Your task to perform on an android device: Open battery settings Image 0: 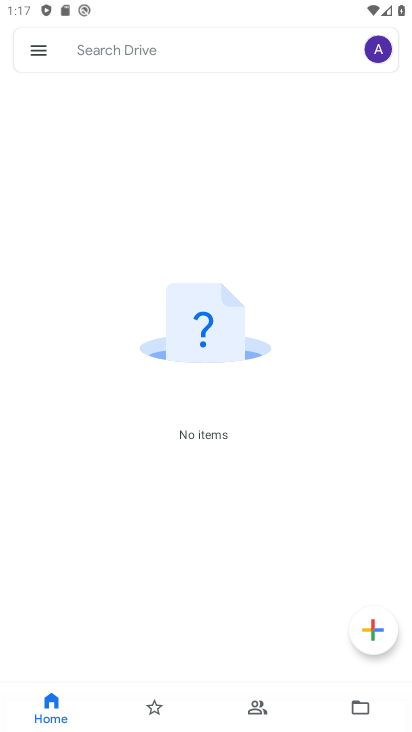
Step 0: press home button
Your task to perform on an android device: Open battery settings Image 1: 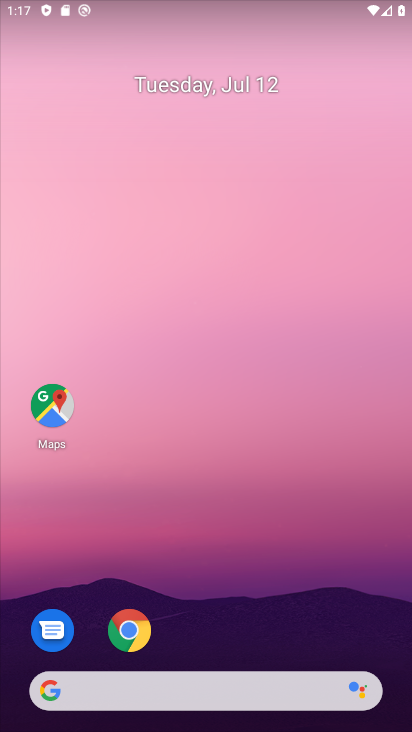
Step 1: drag from (204, 658) to (144, 51)
Your task to perform on an android device: Open battery settings Image 2: 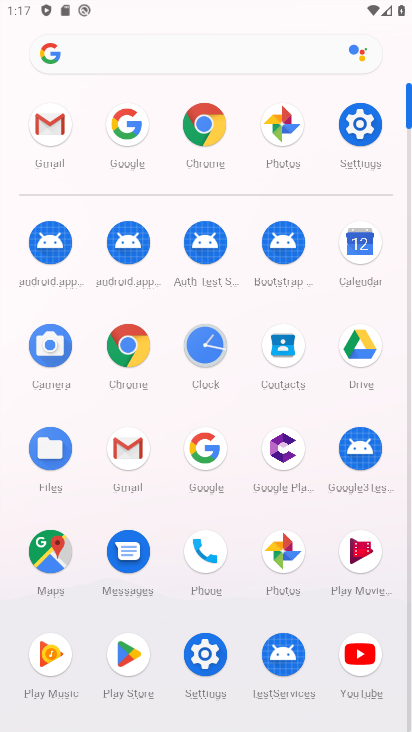
Step 2: click (215, 659)
Your task to perform on an android device: Open battery settings Image 3: 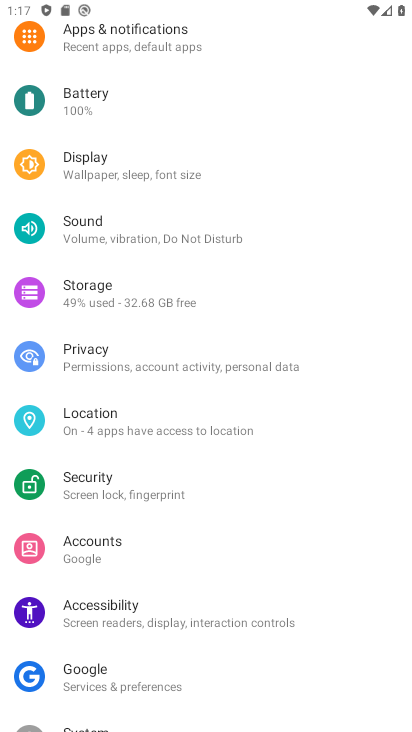
Step 3: click (105, 98)
Your task to perform on an android device: Open battery settings Image 4: 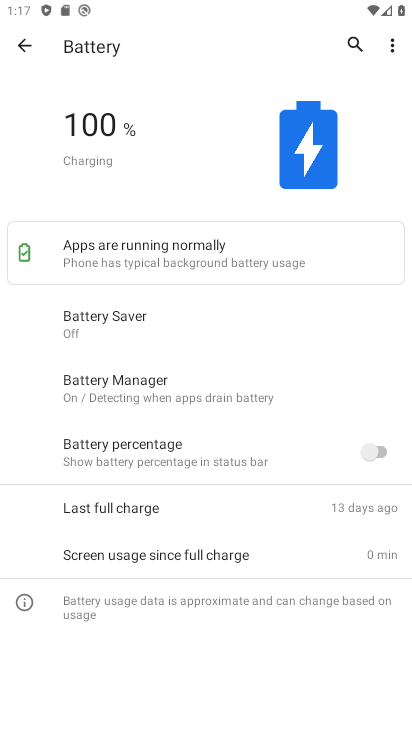
Step 4: task complete